Your task to perform on an android device: Search for the best gaming monitor on Best Buy Image 0: 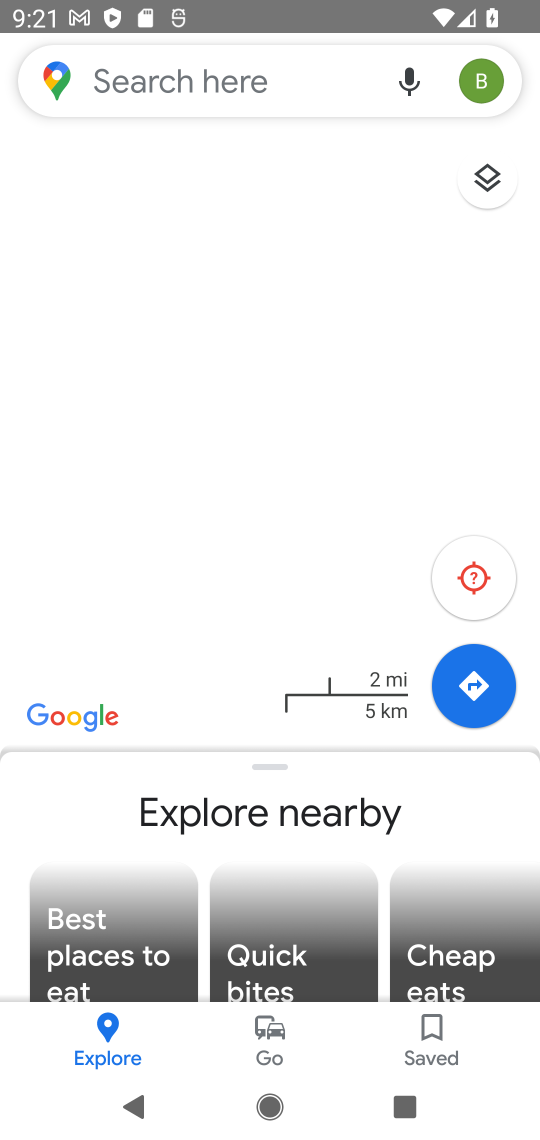
Step 0: press home button
Your task to perform on an android device: Search for the best gaming monitor on Best Buy Image 1: 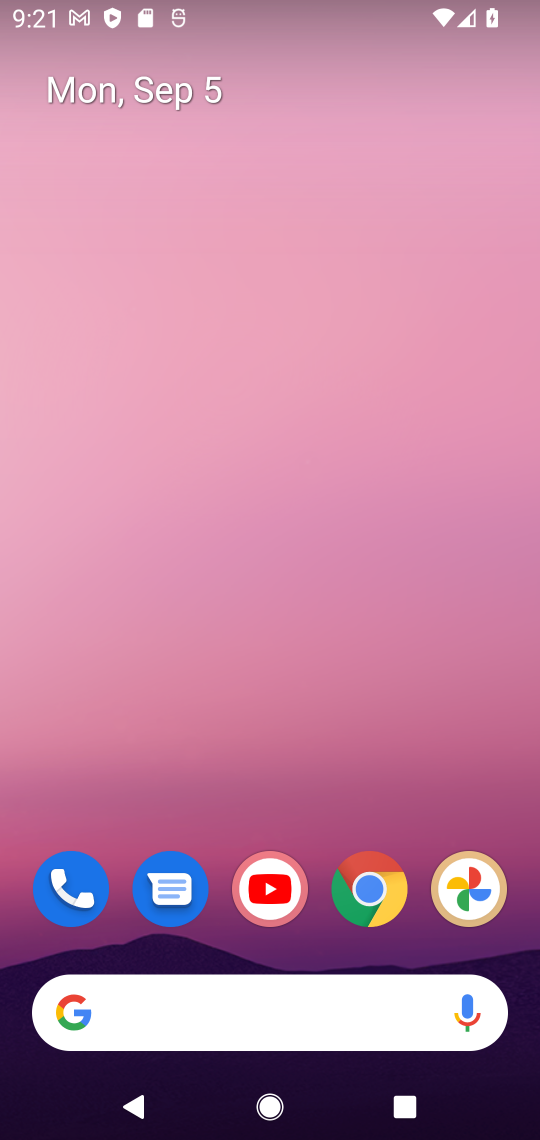
Step 1: click (278, 987)
Your task to perform on an android device: Search for the best gaming monitor on Best Buy Image 2: 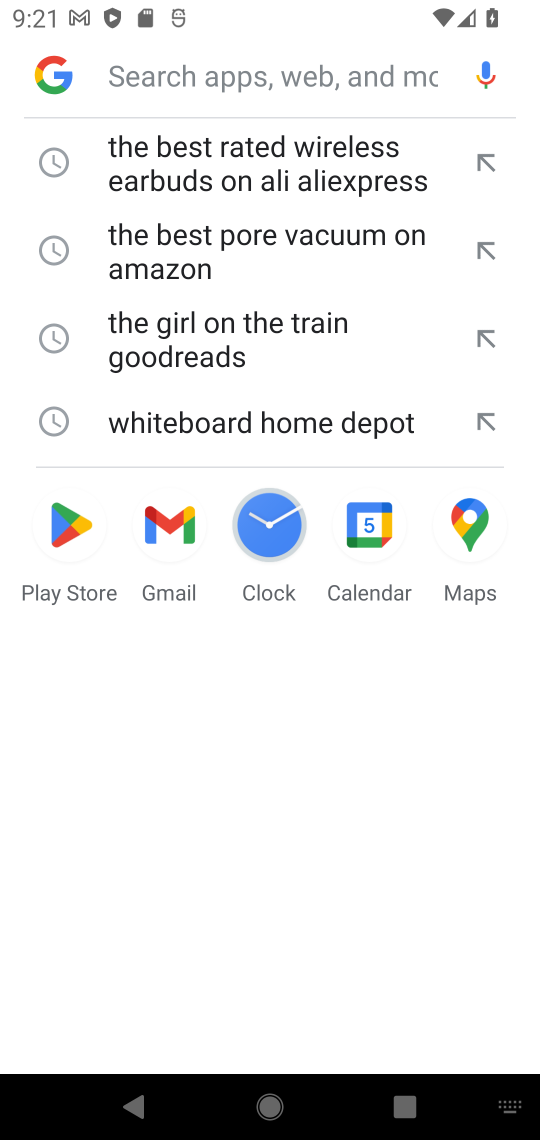
Step 2: type " the best gaming monitor on Best Buy"
Your task to perform on an android device: Search for the best gaming monitor on Best Buy Image 3: 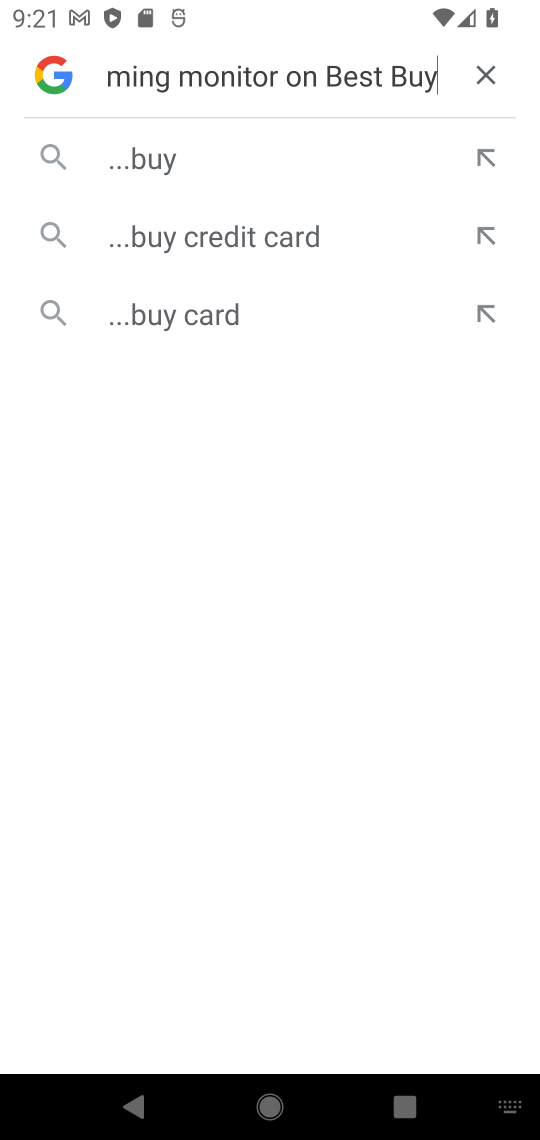
Step 3: click (148, 147)
Your task to perform on an android device: Search for the best gaming monitor on Best Buy Image 4: 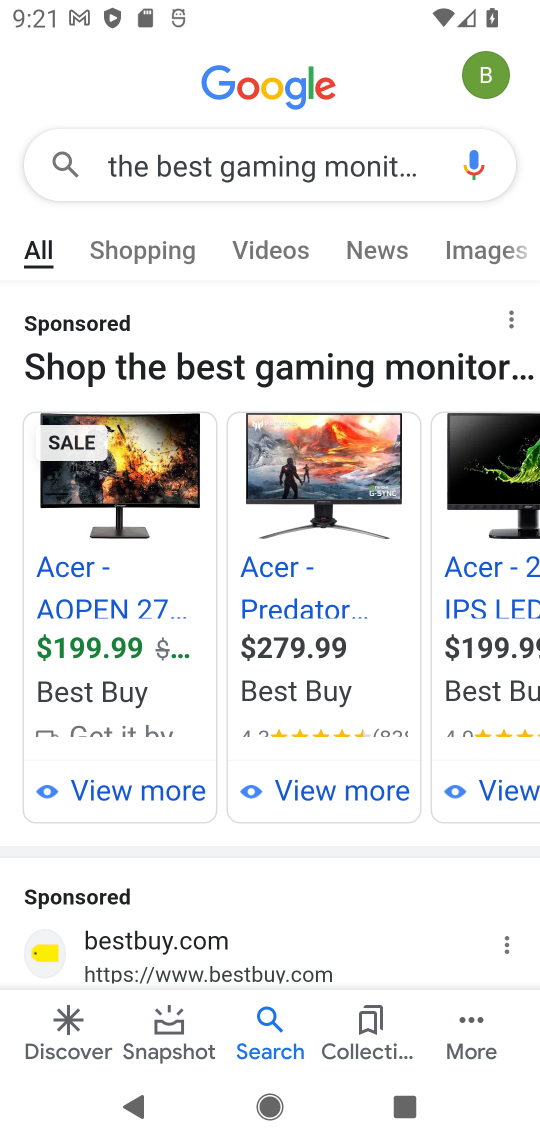
Step 4: task complete